Your task to perform on an android device: Empty the shopping cart on ebay. Image 0: 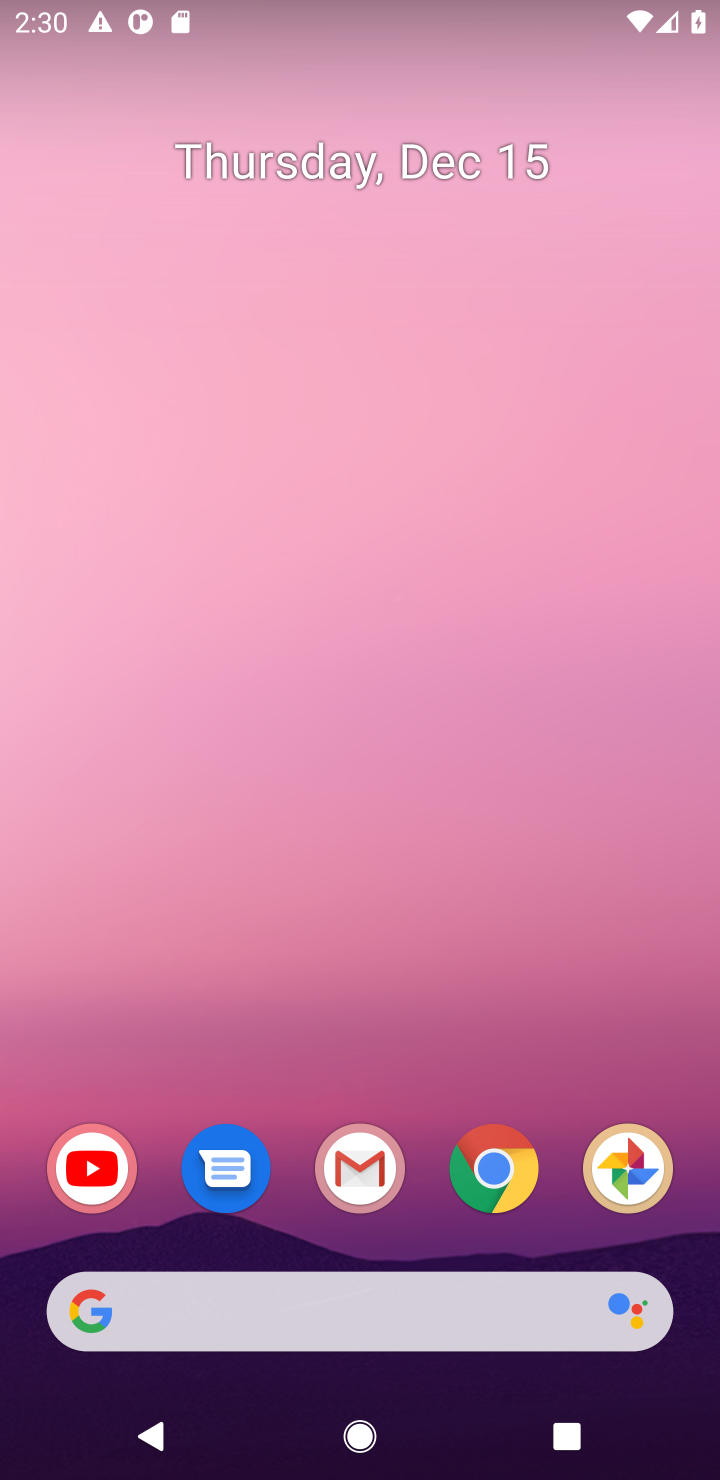
Step 0: click (493, 1163)
Your task to perform on an android device: Empty the shopping cart on ebay. Image 1: 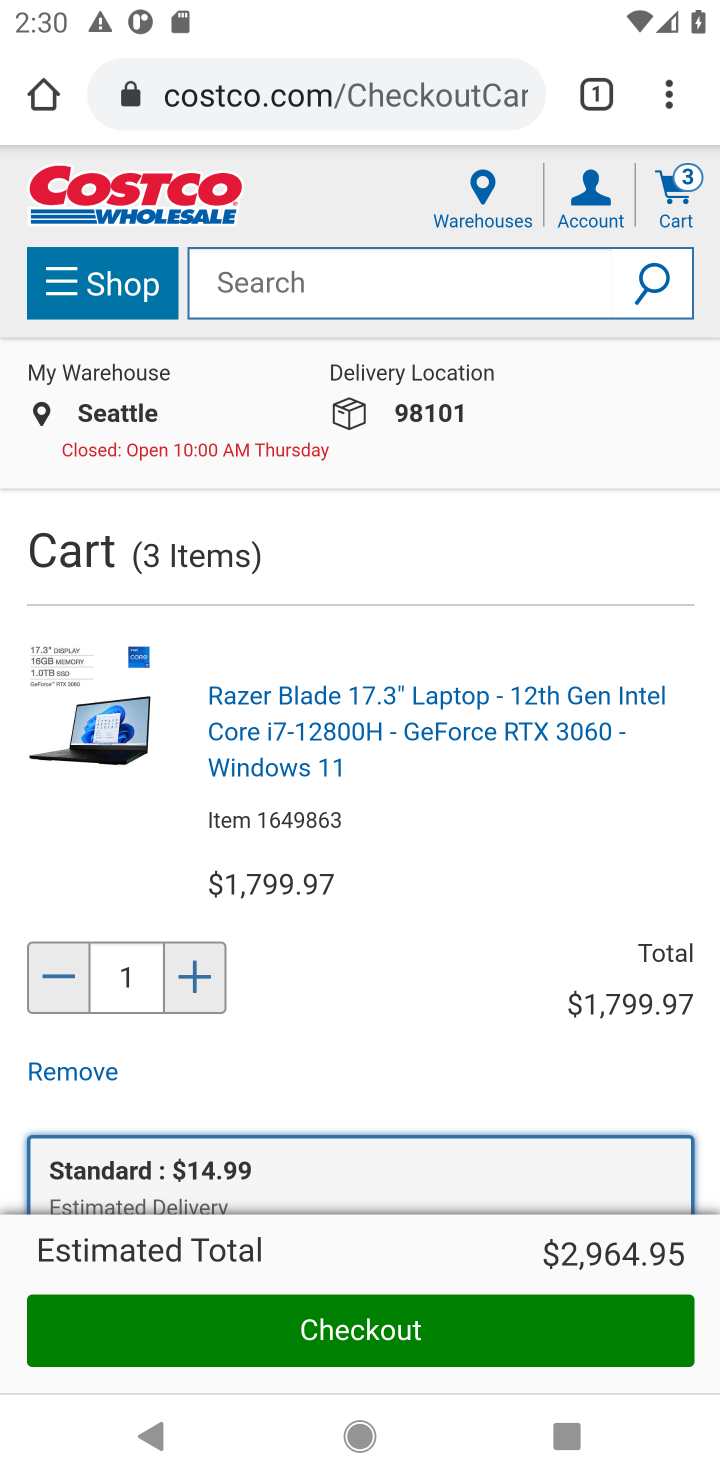
Step 1: click (340, 83)
Your task to perform on an android device: Empty the shopping cart on ebay. Image 2: 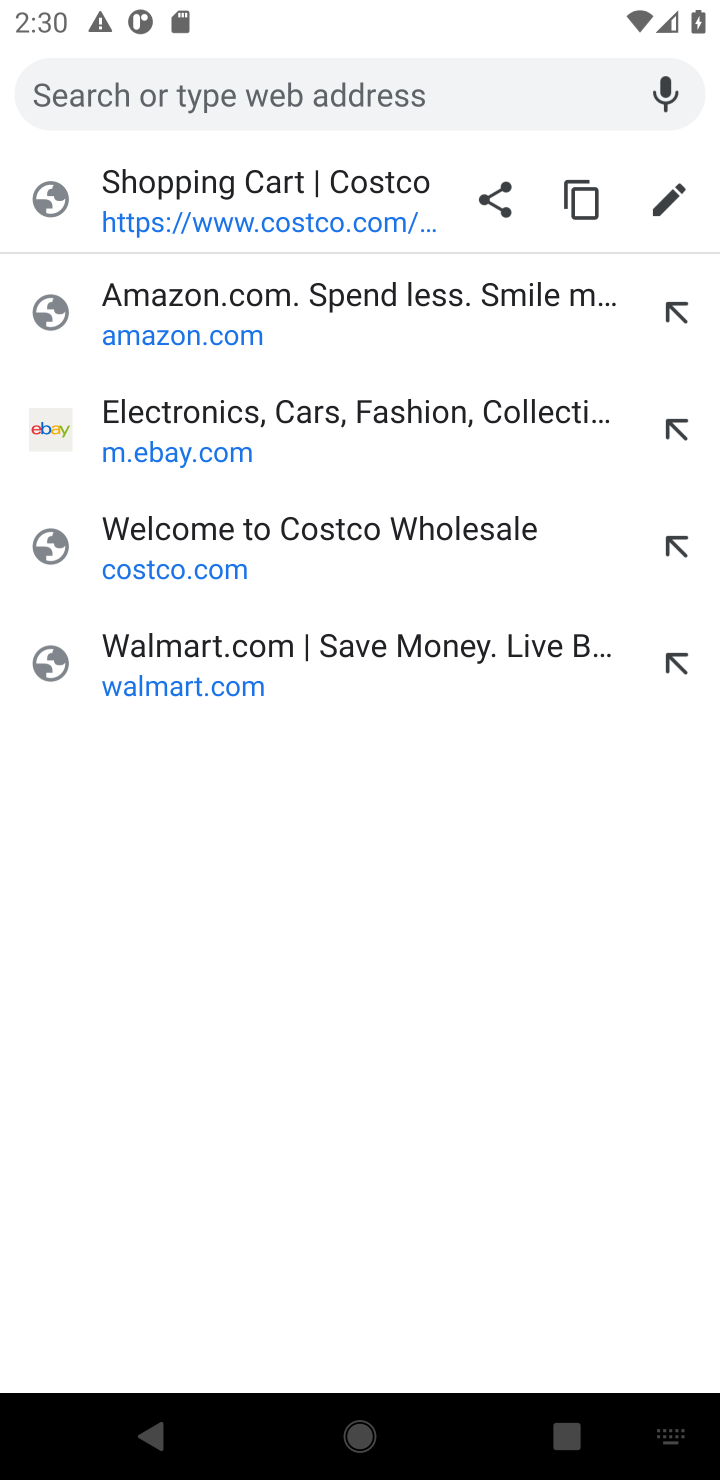
Step 2: click (325, 400)
Your task to perform on an android device: Empty the shopping cart on ebay. Image 3: 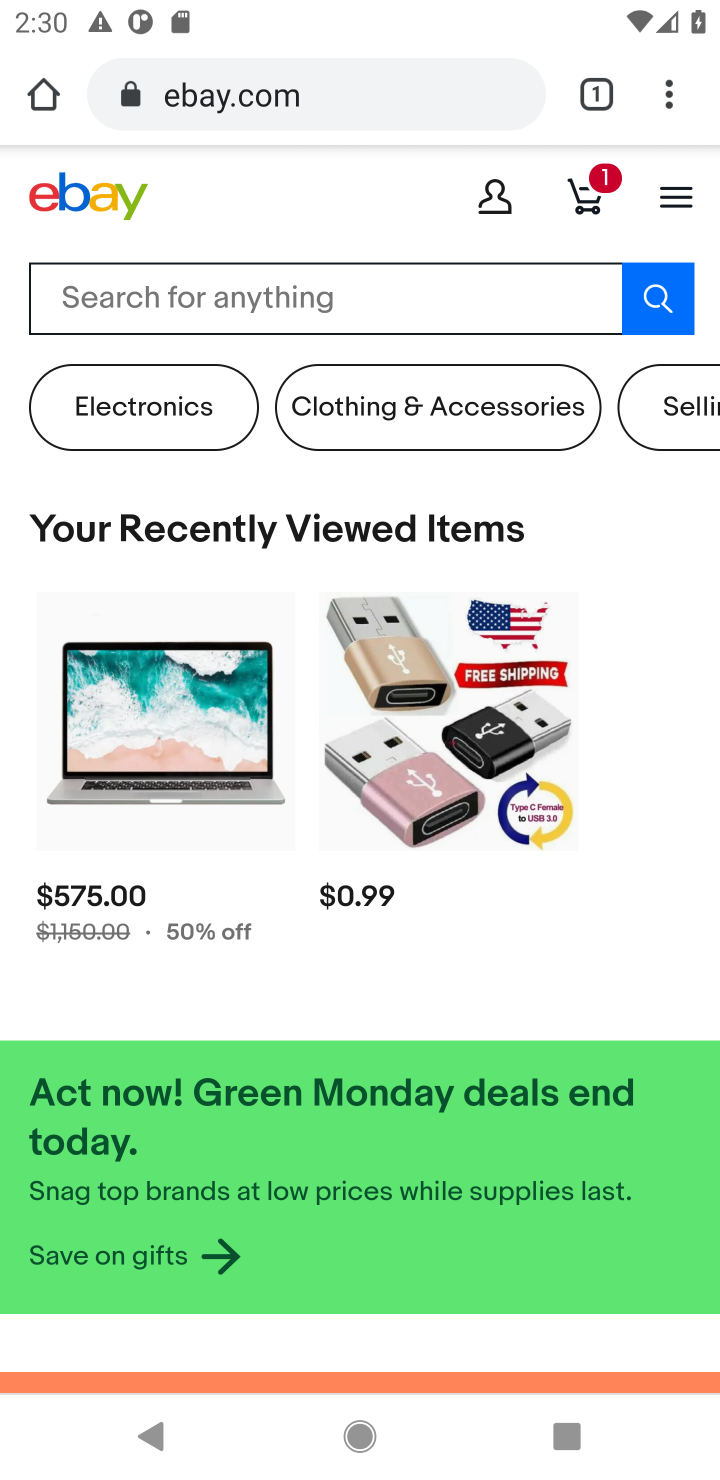
Step 3: click (601, 192)
Your task to perform on an android device: Empty the shopping cart on ebay. Image 4: 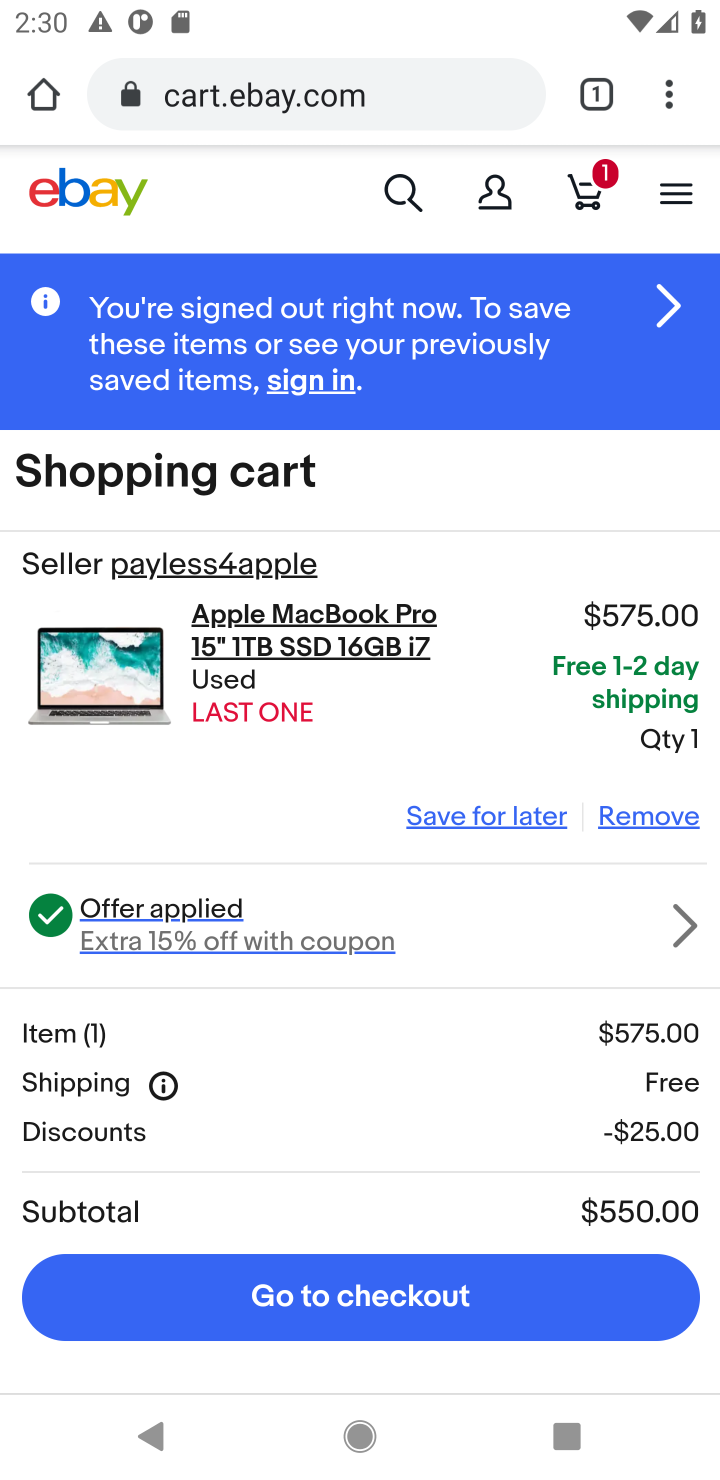
Step 4: click (652, 808)
Your task to perform on an android device: Empty the shopping cart on ebay. Image 5: 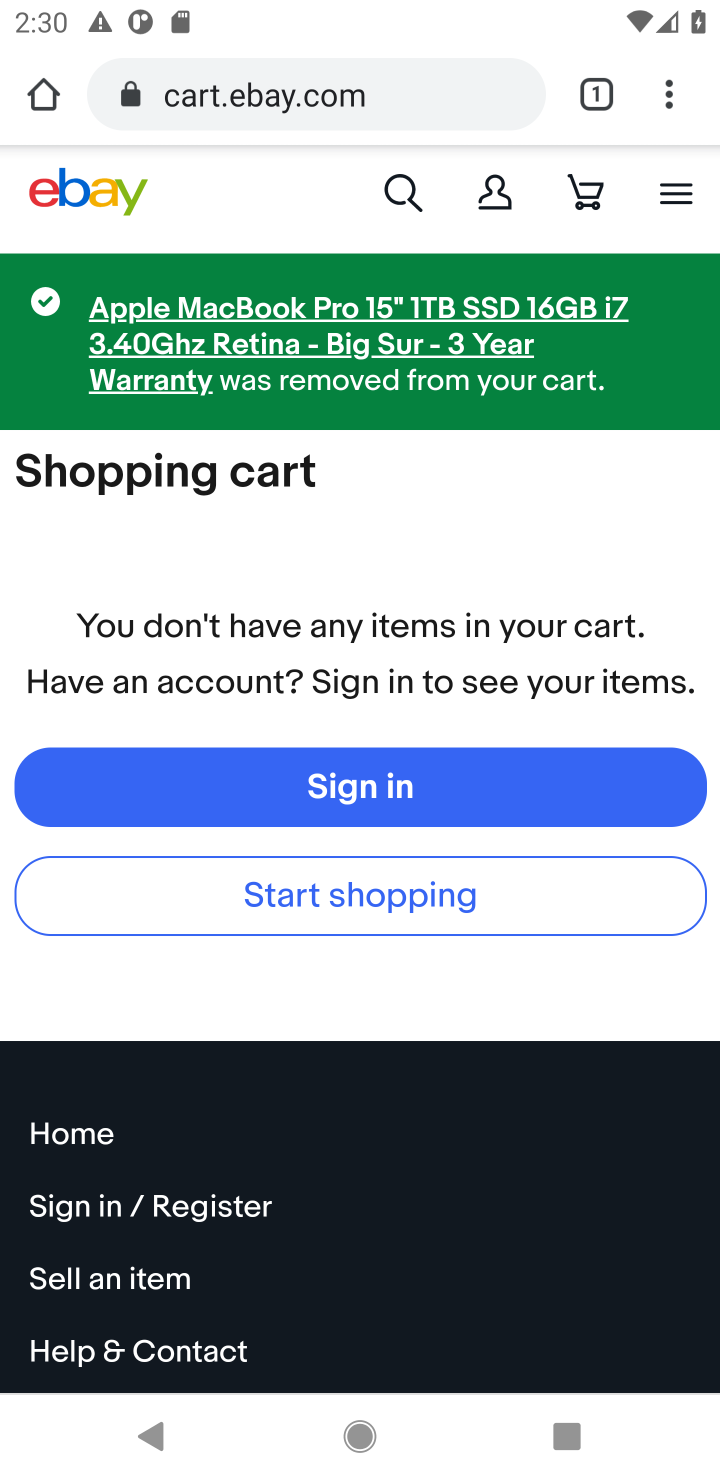
Step 5: click (593, 209)
Your task to perform on an android device: Empty the shopping cart on ebay. Image 6: 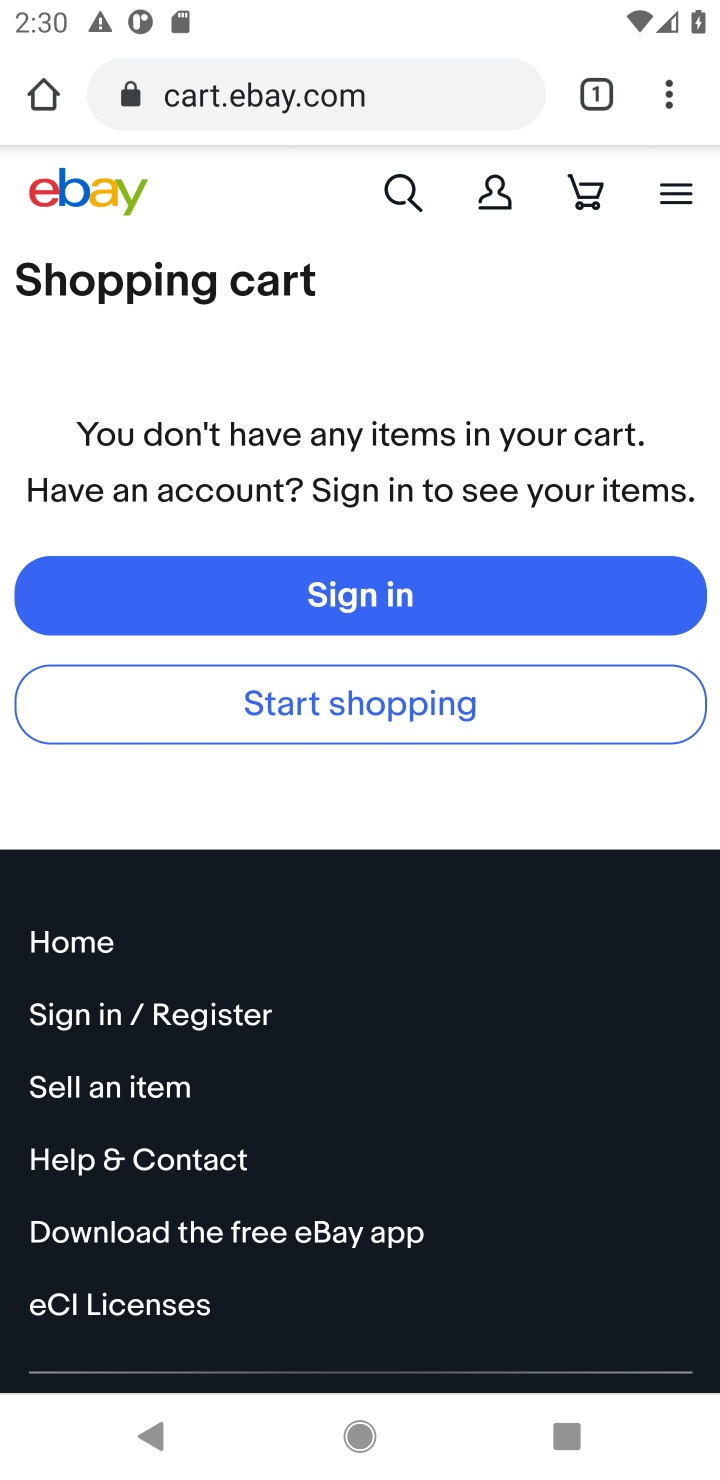
Step 6: task complete